Your task to perform on an android device: open app "ZOOM Cloud Meetings" Image 0: 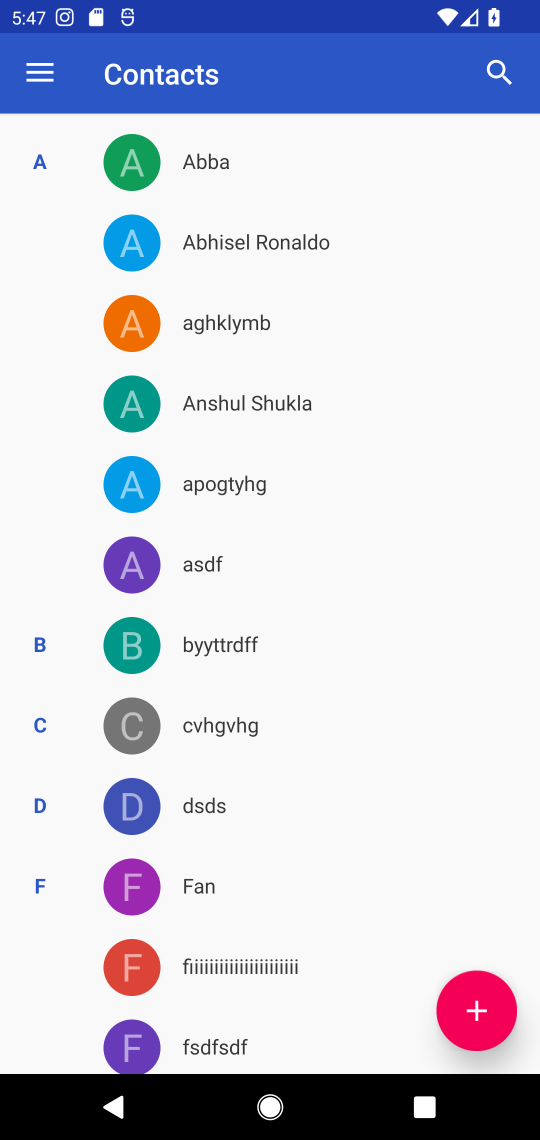
Step 0: press home button
Your task to perform on an android device: open app "ZOOM Cloud Meetings" Image 1: 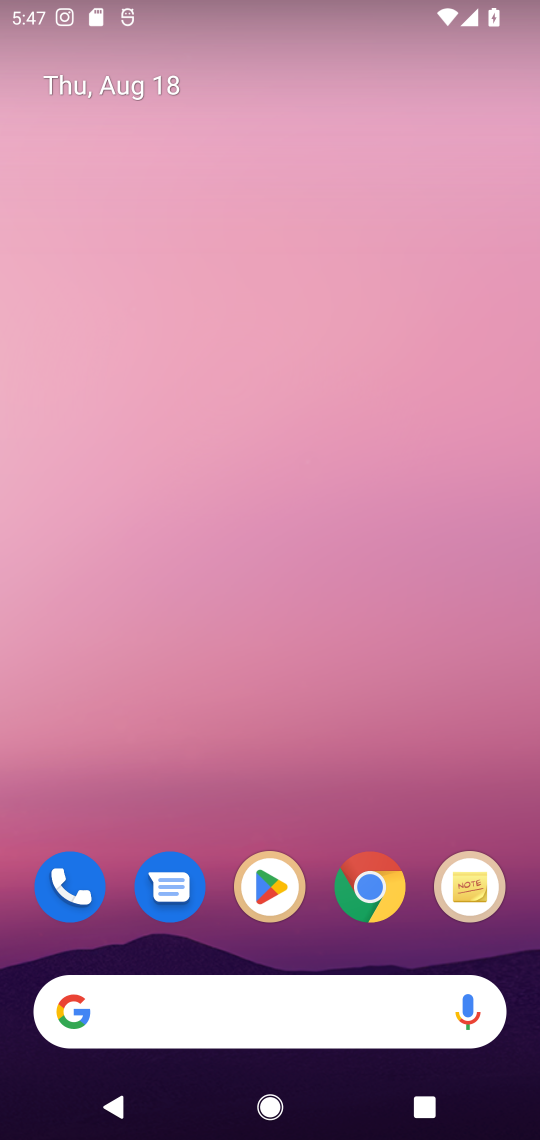
Step 1: click (267, 873)
Your task to perform on an android device: open app "ZOOM Cloud Meetings" Image 2: 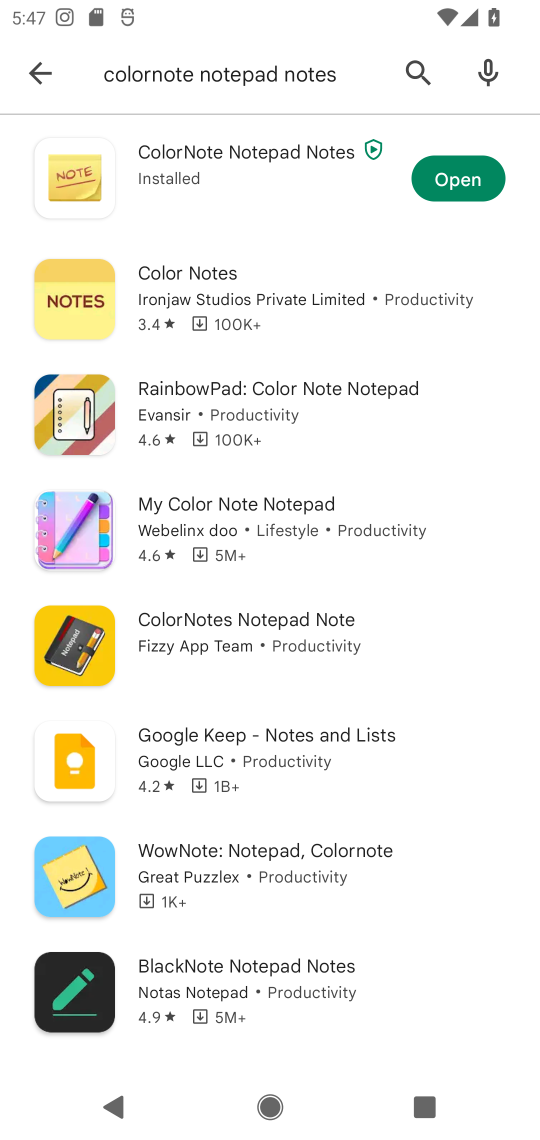
Step 2: click (414, 62)
Your task to perform on an android device: open app "ZOOM Cloud Meetings" Image 3: 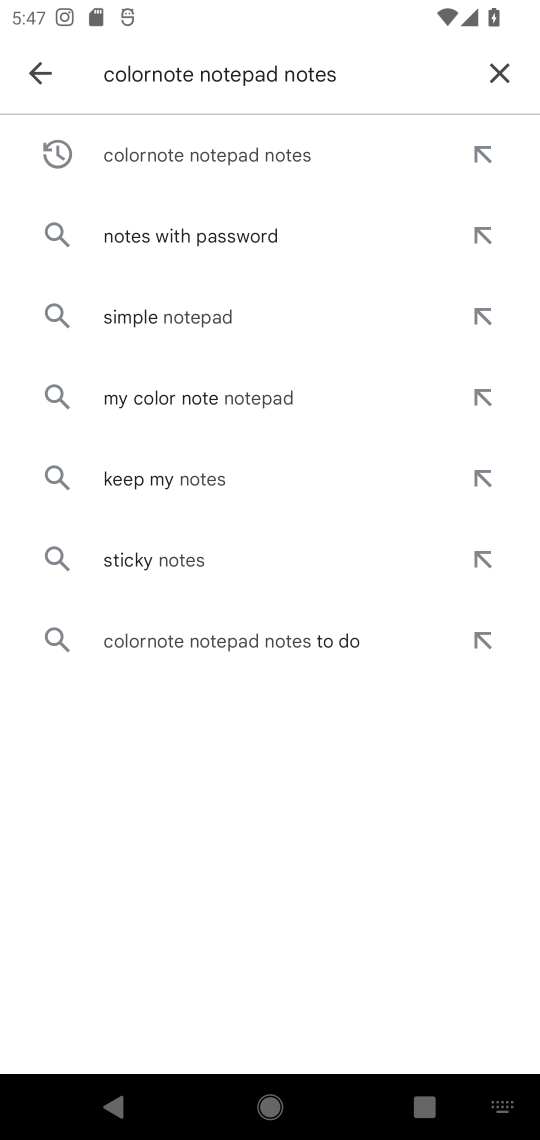
Step 3: click (499, 66)
Your task to perform on an android device: open app "ZOOM Cloud Meetings" Image 4: 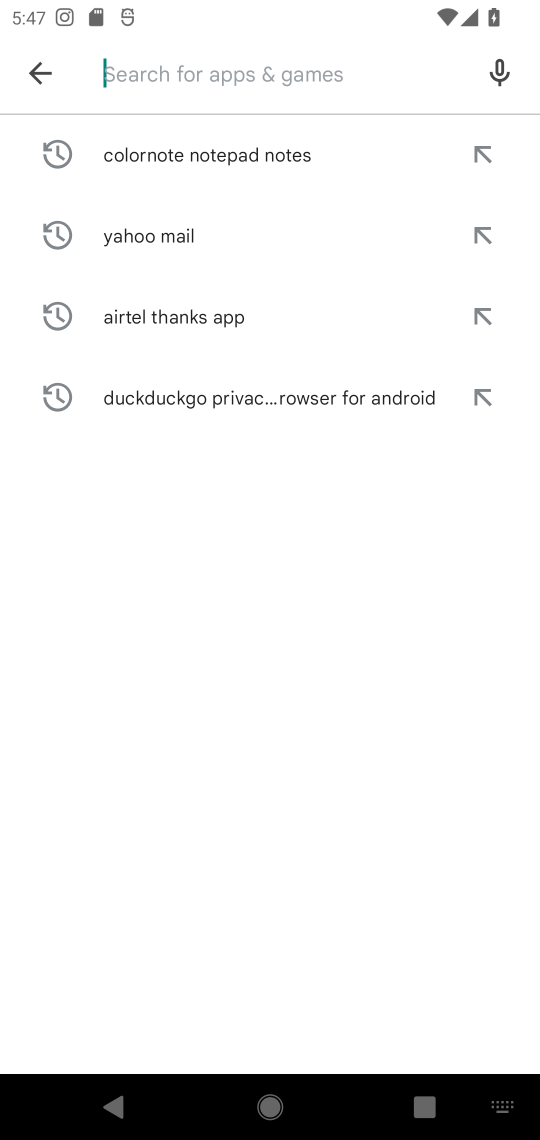
Step 4: type "Zoom "
Your task to perform on an android device: open app "ZOOM Cloud Meetings" Image 5: 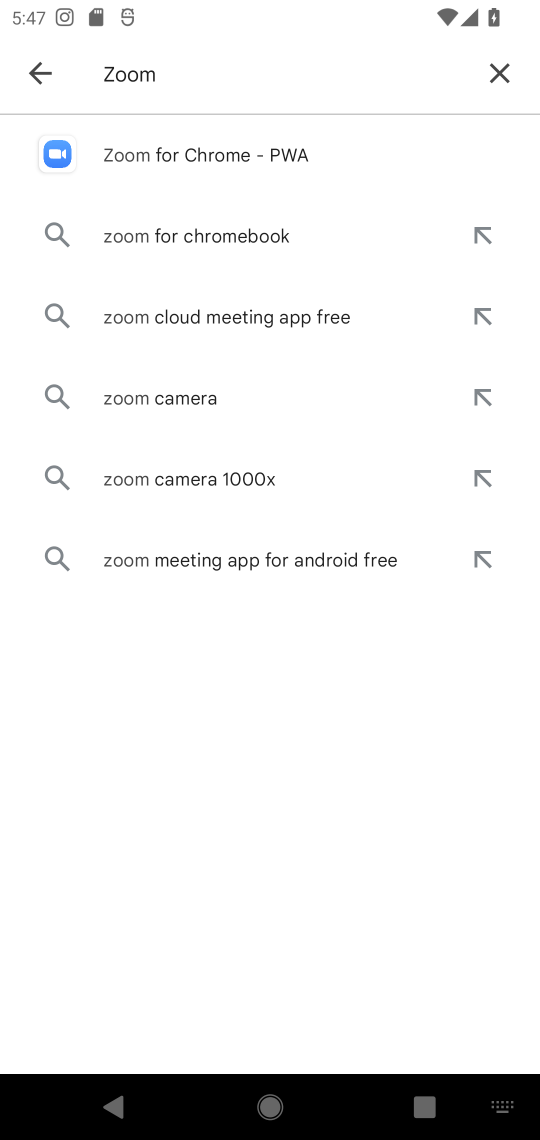
Step 5: type "Cloud Meetings"
Your task to perform on an android device: open app "ZOOM Cloud Meetings" Image 6: 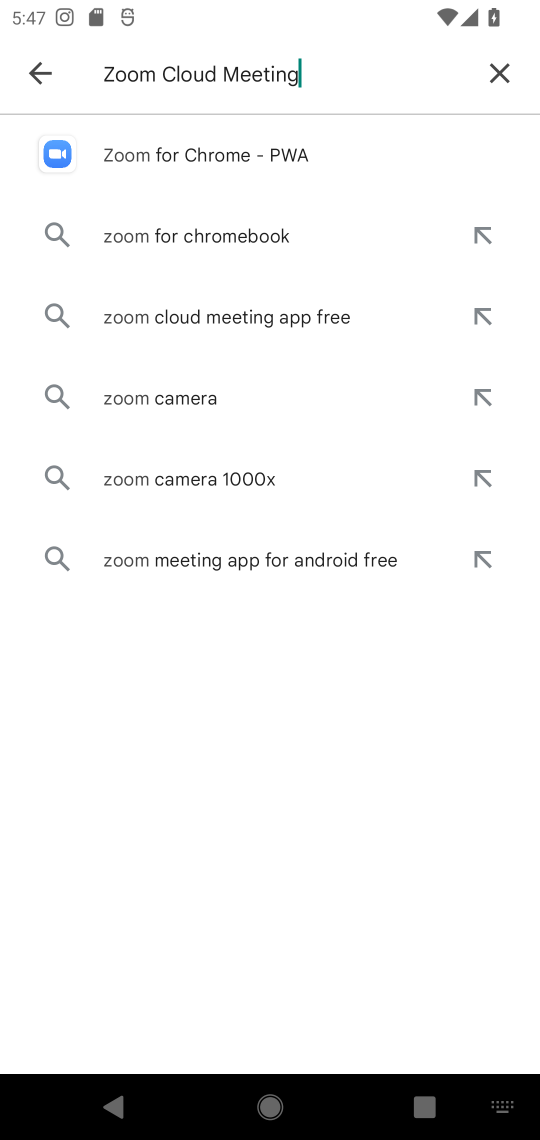
Step 6: type ""
Your task to perform on an android device: open app "ZOOM Cloud Meetings" Image 7: 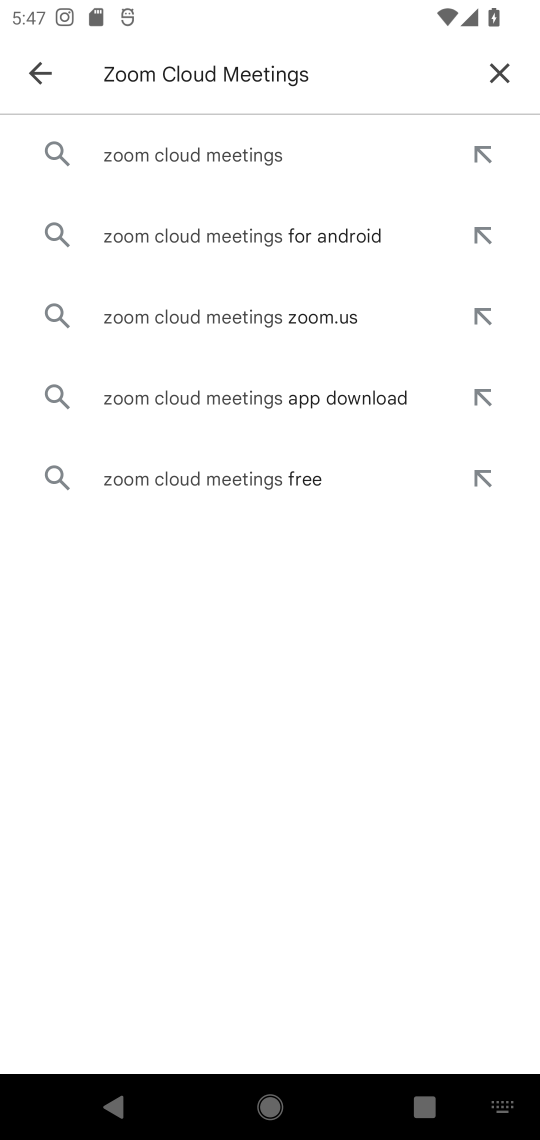
Step 7: click (233, 153)
Your task to perform on an android device: open app "ZOOM Cloud Meetings" Image 8: 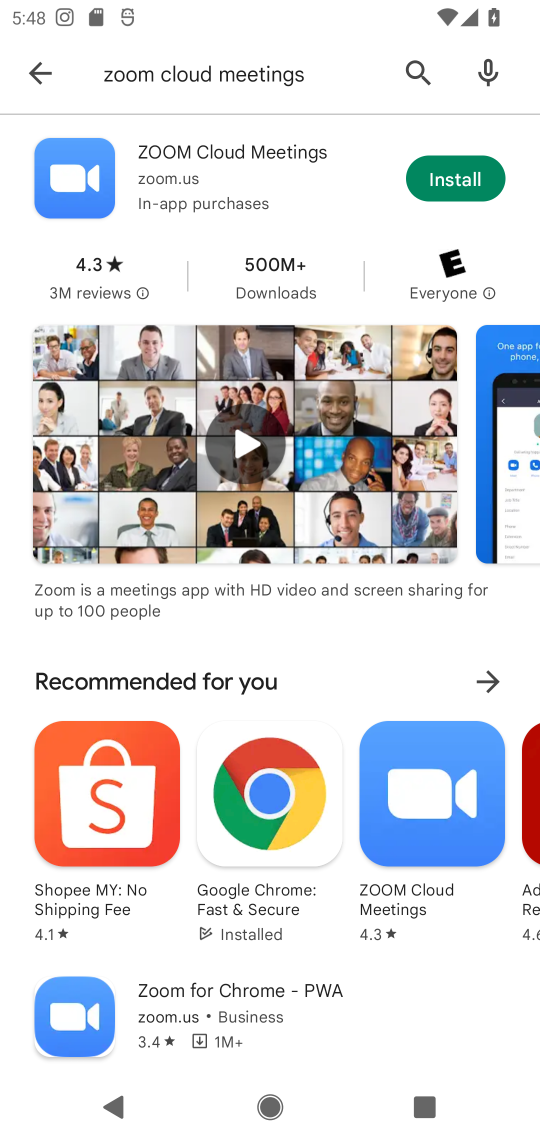
Step 8: task complete